Your task to perform on an android device: set the timer Image 0: 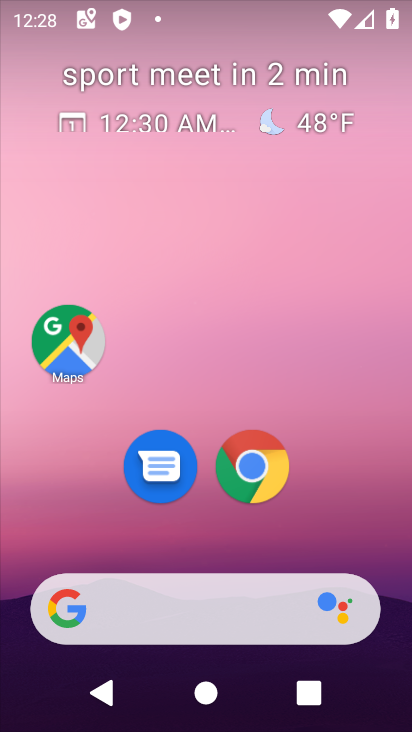
Step 0: drag from (399, 603) to (348, 127)
Your task to perform on an android device: set the timer Image 1: 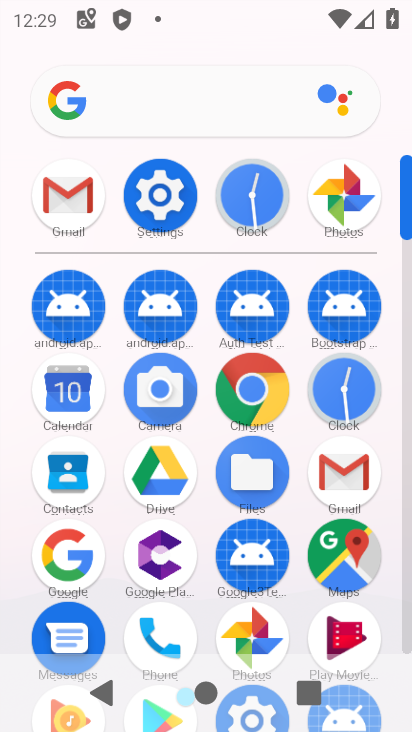
Step 1: click (407, 633)
Your task to perform on an android device: set the timer Image 2: 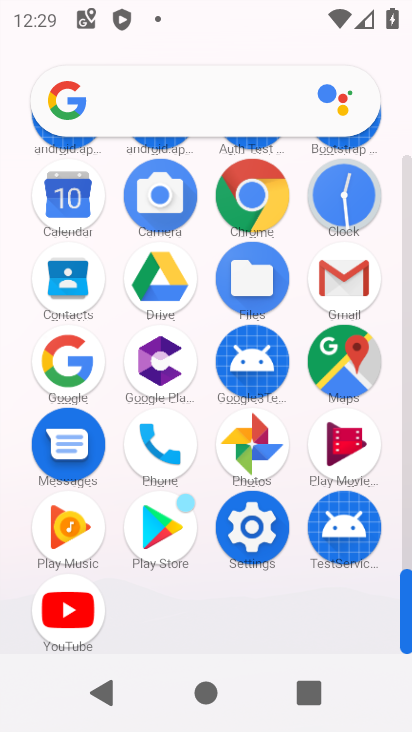
Step 2: click (342, 193)
Your task to perform on an android device: set the timer Image 3: 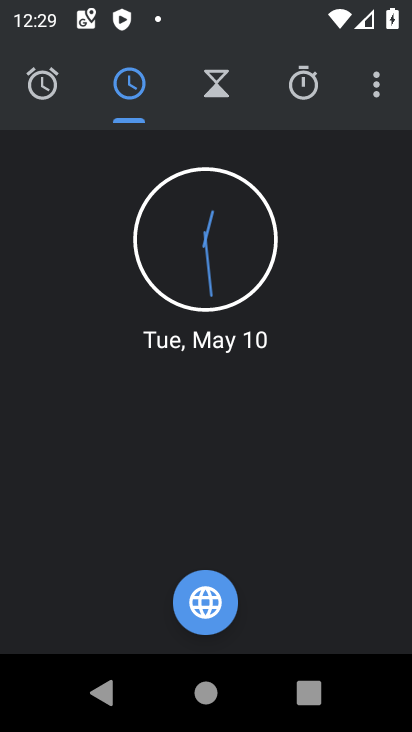
Step 3: click (223, 85)
Your task to perform on an android device: set the timer Image 4: 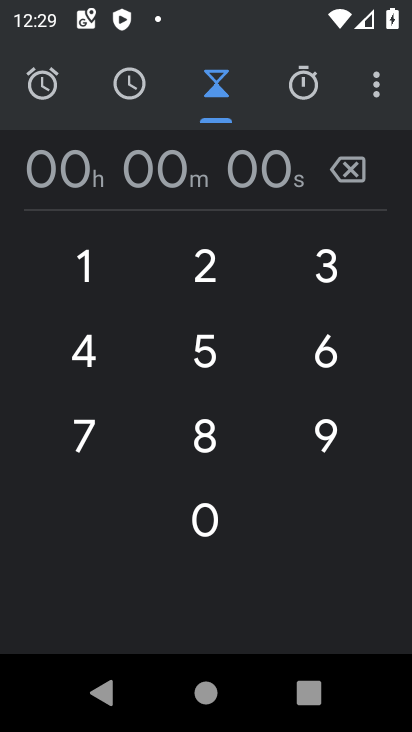
Step 4: click (78, 252)
Your task to perform on an android device: set the timer Image 5: 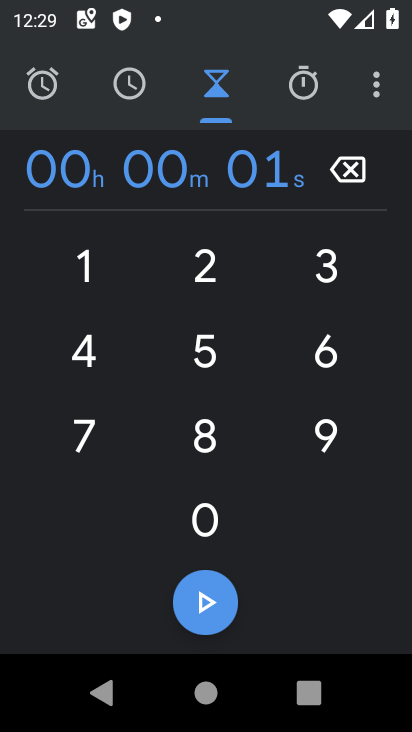
Step 5: click (312, 264)
Your task to perform on an android device: set the timer Image 6: 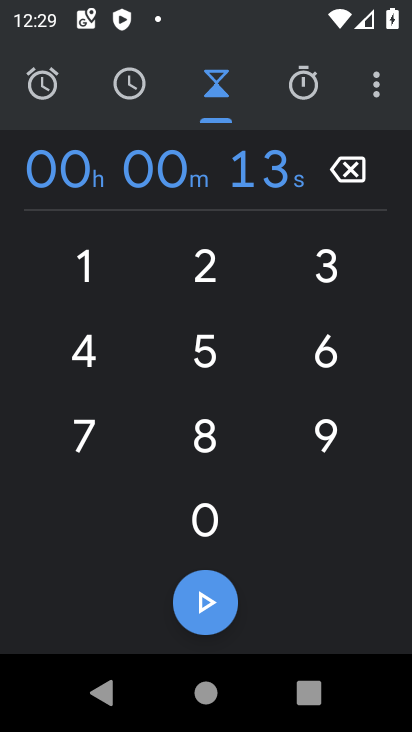
Step 6: click (196, 531)
Your task to perform on an android device: set the timer Image 7: 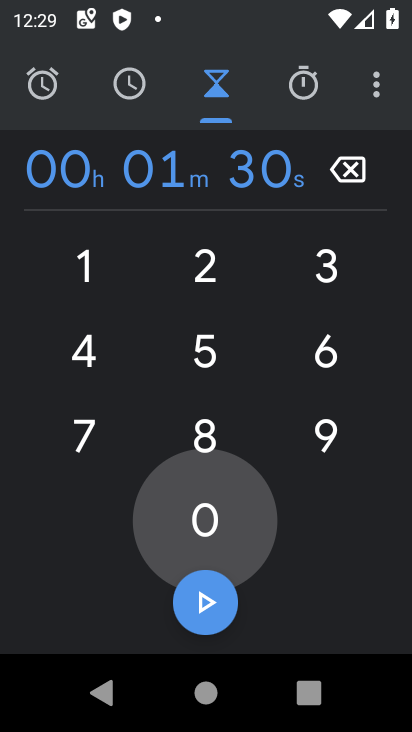
Step 7: click (196, 531)
Your task to perform on an android device: set the timer Image 8: 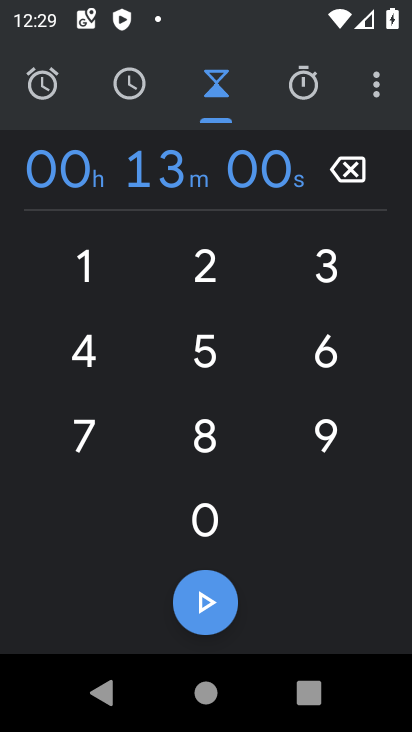
Step 8: click (196, 531)
Your task to perform on an android device: set the timer Image 9: 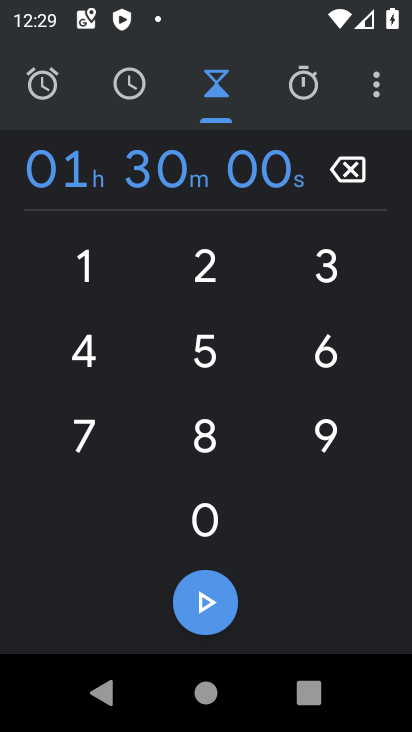
Step 9: task complete